Your task to perform on an android device: turn on showing notifications on the lock screen Image 0: 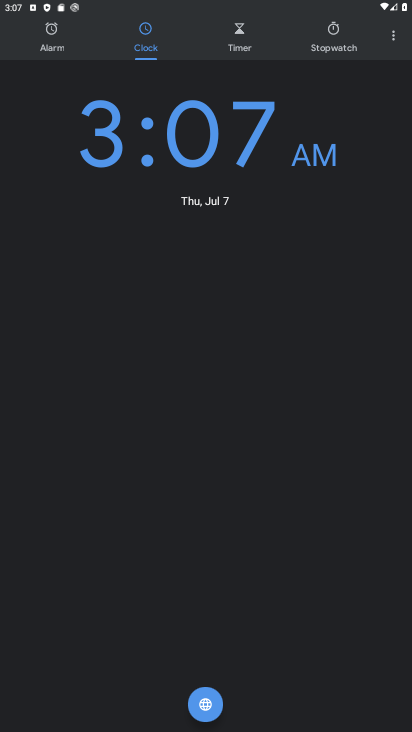
Step 0: press home button
Your task to perform on an android device: turn on showing notifications on the lock screen Image 1: 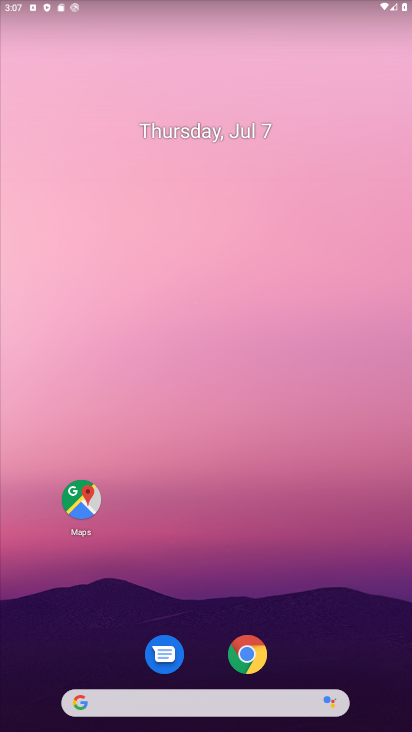
Step 1: drag from (306, 608) to (266, 187)
Your task to perform on an android device: turn on showing notifications on the lock screen Image 2: 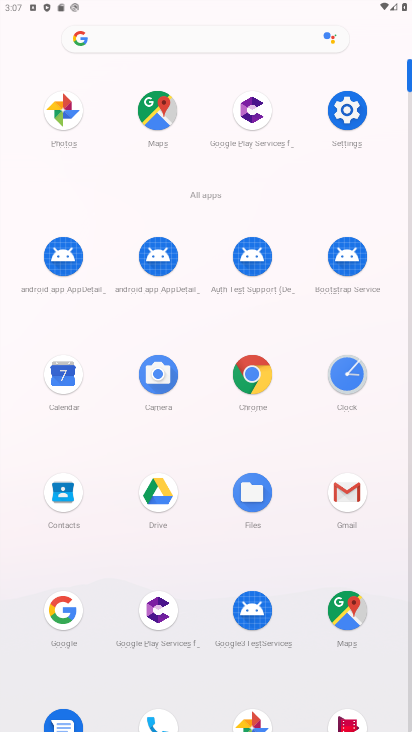
Step 2: click (354, 116)
Your task to perform on an android device: turn on showing notifications on the lock screen Image 3: 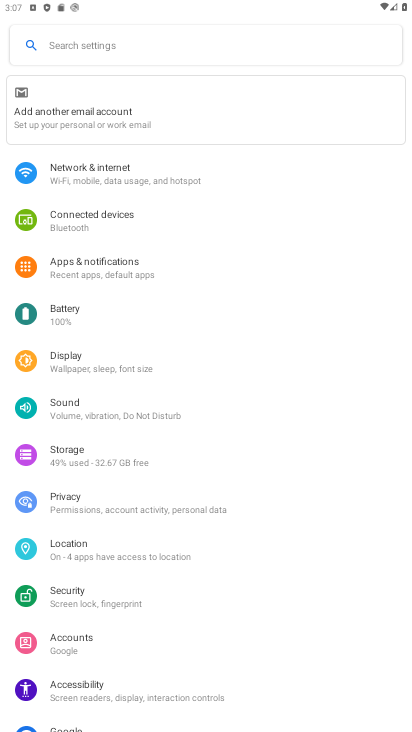
Step 3: click (152, 262)
Your task to perform on an android device: turn on showing notifications on the lock screen Image 4: 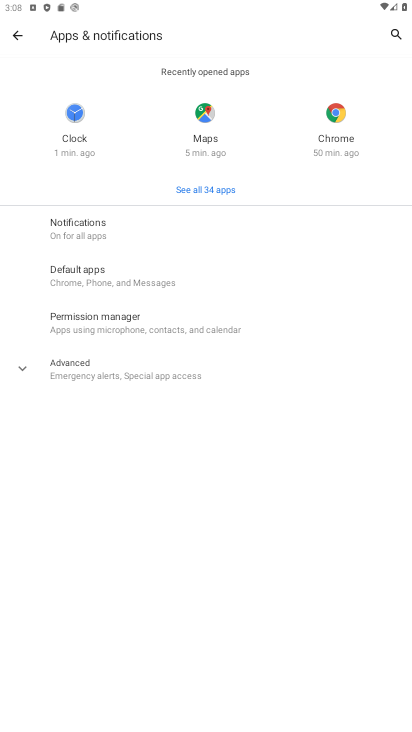
Step 4: click (149, 218)
Your task to perform on an android device: turn on showing notifications on the lock screen Image 5: 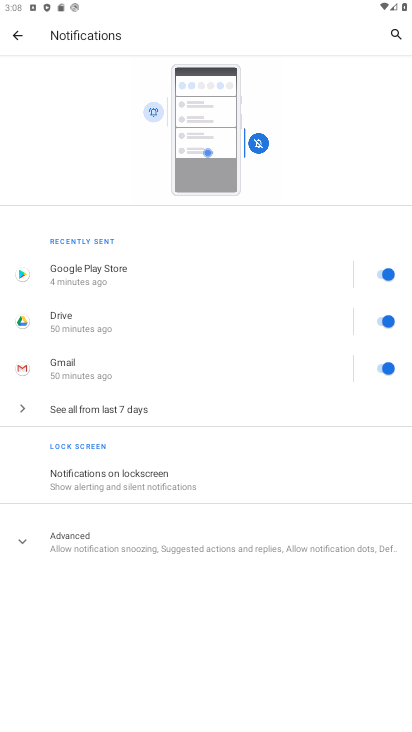
Step 5: click (169, 524)
Your task to perform on an android device: turn on showing notifications on the lock screen Image 6: 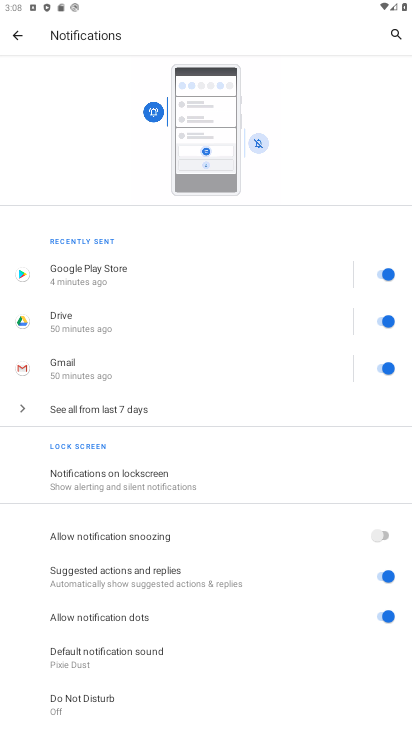
Step 6: click (185, 478)
Your task to perform on an android device: turn on showing notifications on the lock screen Image 7: 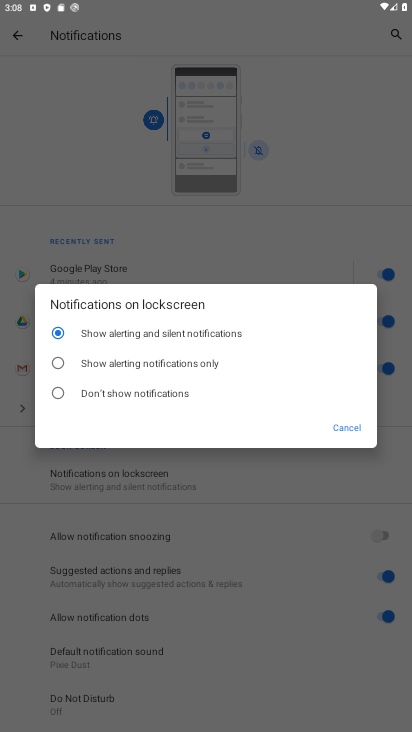
Step 7: task complete